Your task to perform on an android device: What's the weather today? Image 0: 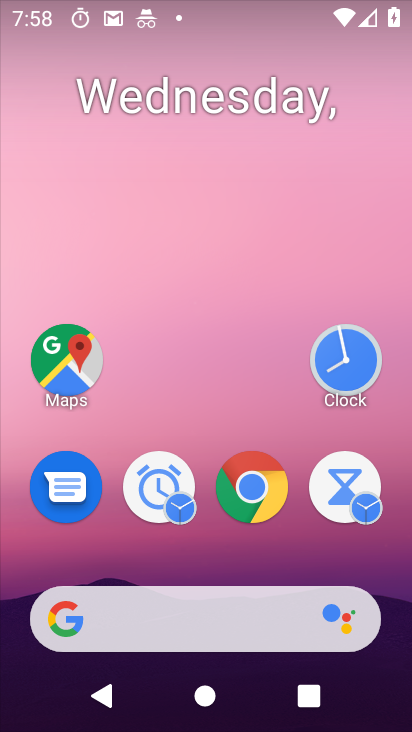
Step 0: drag from (247, 661) to (181, 111)
Your task to perform on an android device: What's the weather today? Image 1: 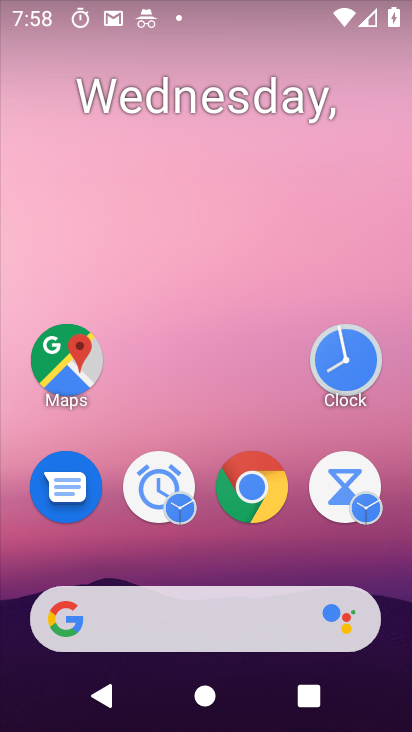
Step 1: drag from (268, 535) to (249, 190)
Your task to perform on an android device: What's the weather today? Image 2: 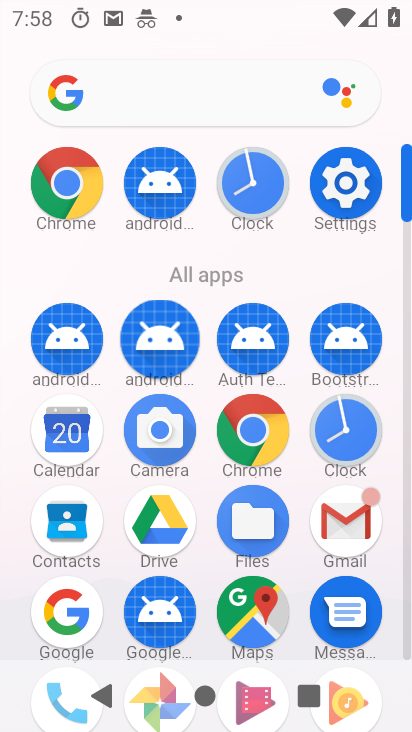
Step 2: press home button
Your task to perform on an android device: What's the weather today? Image 3: 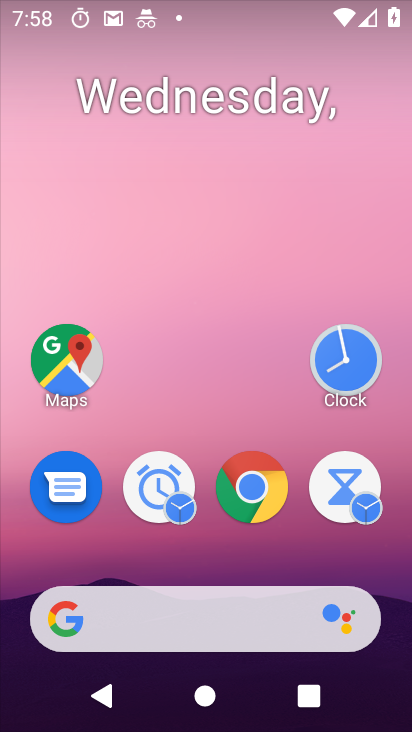
Step 3: drag from (12, 230) to (370, 351)
Your task to perform on an android device: What's the weather today? Image 4: 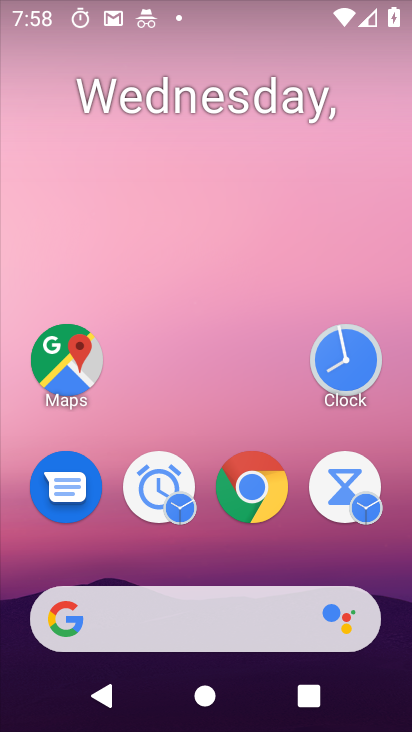
Step 4: drag from (34, 221) to (318, 288)
Your task to perform on an android device: What's the weather today? Image 5: 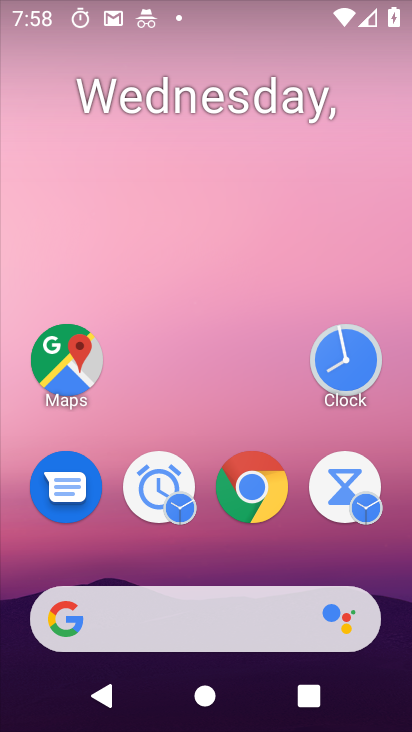
Step 5: drag from (20, 282) to (407, 298)
Your task to perform on an android device: What's the weather today? Image 6: 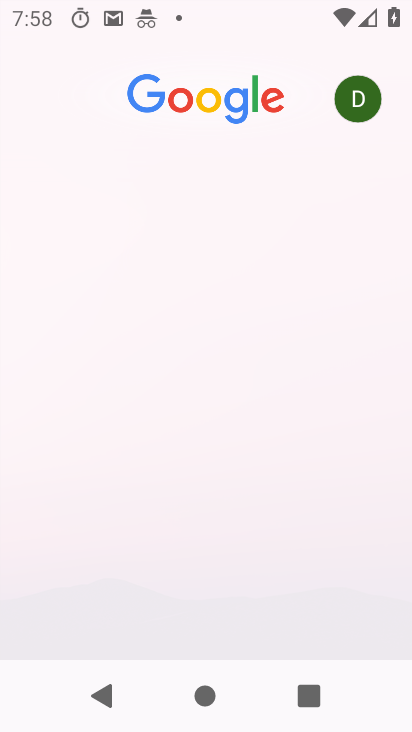
Step 6: drag from (87, 222) to (392, 258)
Your task to perform on an android device: What's the weather today? Image 7: 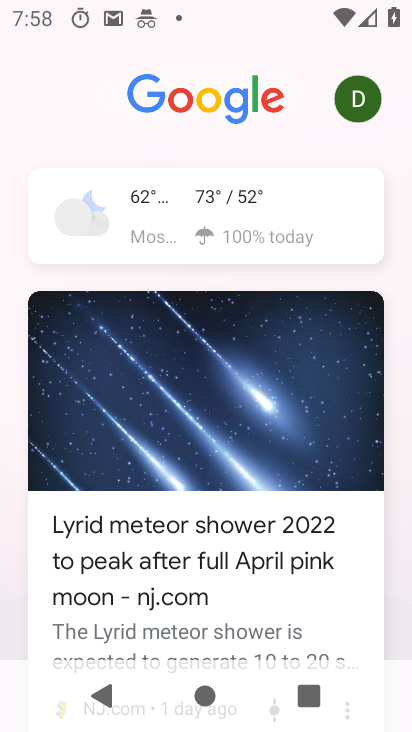
Step 7: click (217, 214)
Your task to perform on an android device: What's the weather today? Image 8: 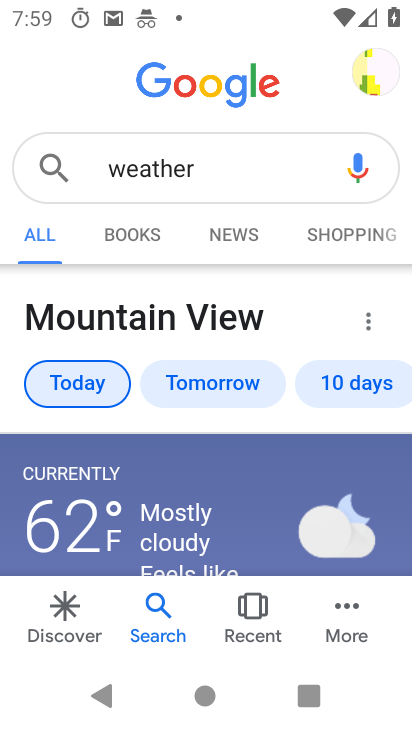
Step 8: drag from (177, 187) to (196, 215)
Your task to perform on an android device: What's the weather today? Image 9: 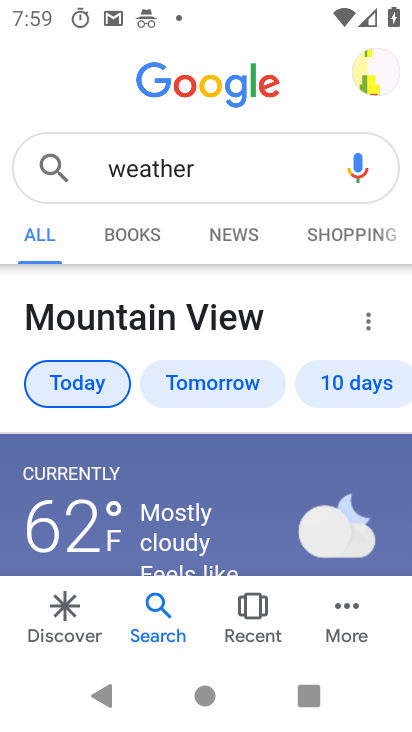
Step 9: drag from (220, 462) to (172, 324)
Your task to perform on an android device: What's the weather today? Image 10: 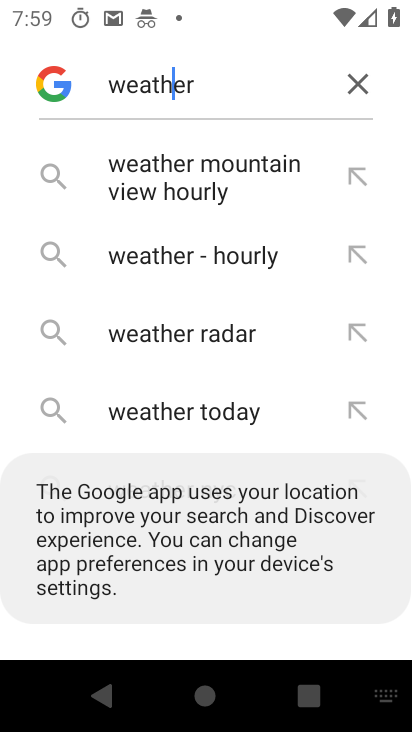
Step 10: click (355, 81)
Your task to perform on an android device: What's the weather today? Image 11: 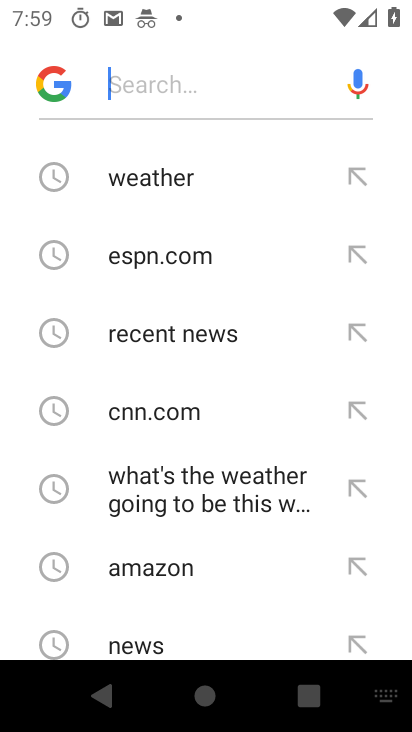
Step 11: task complete